Your task to perform on an android device: Go to Amazon Image 0: 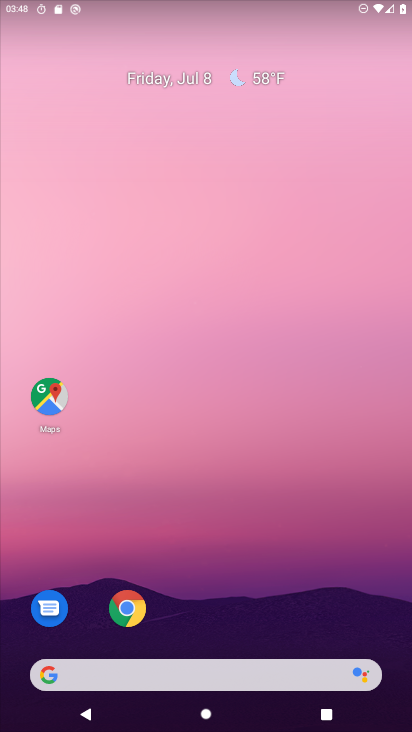
Step 0: click (131, 612)
Your task to perform on an android device: Go to Amazon Image 1: 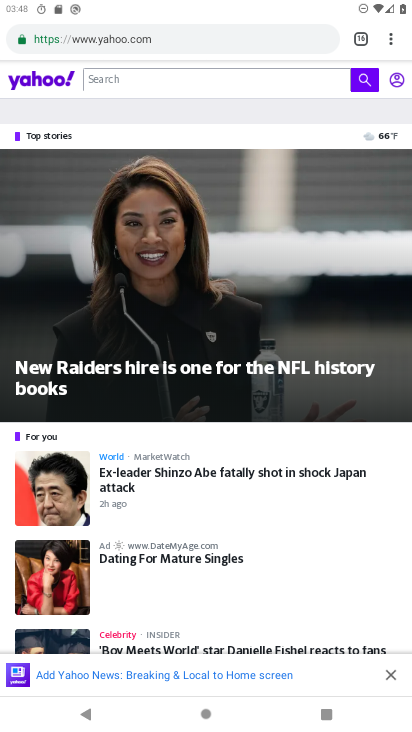
Step 1: click (394, 43)
Your task to perform on an android device: Go to Amazon Image 2: 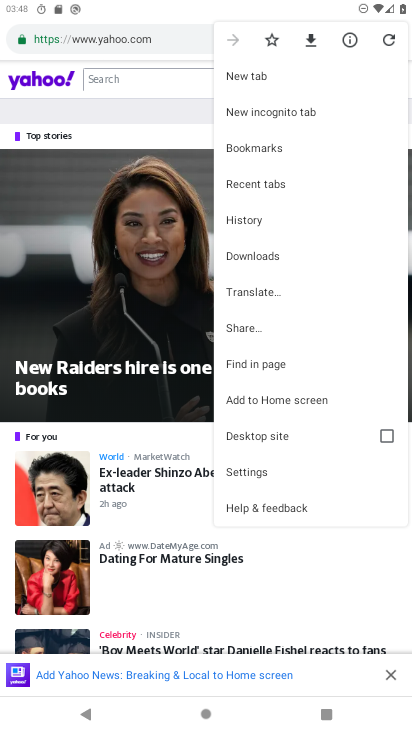
Step 2: click (242, 75)
Your task to perform on an android device: Go to Amazon Image 3: 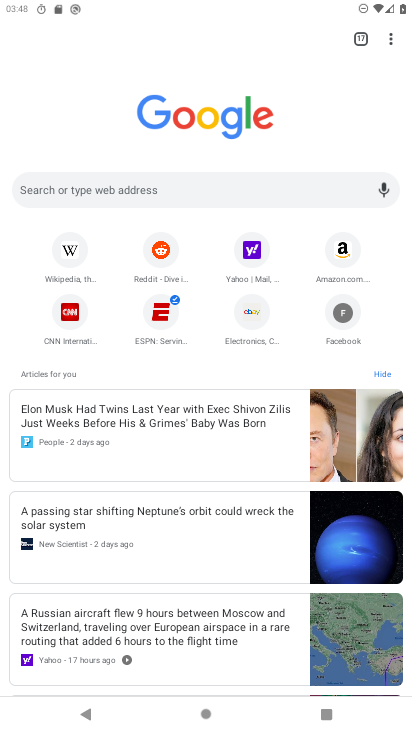
Step 3: click (336, 250)
Your task to perform on an android device: Go to Amazon Image 4: 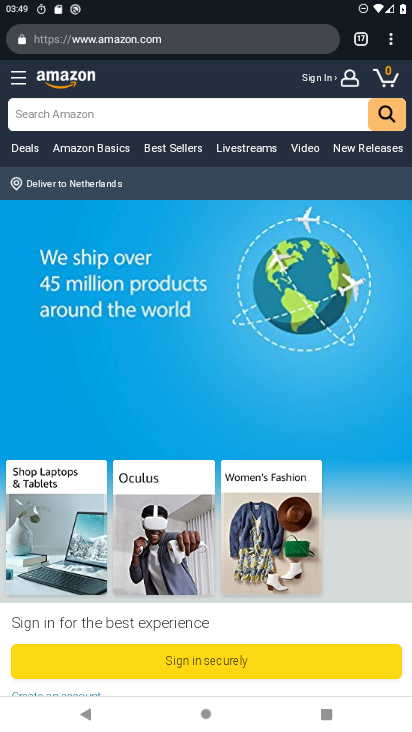
Step 4: task complete